Your task to perform on an android device: Open settings on Google Maps Image 0: 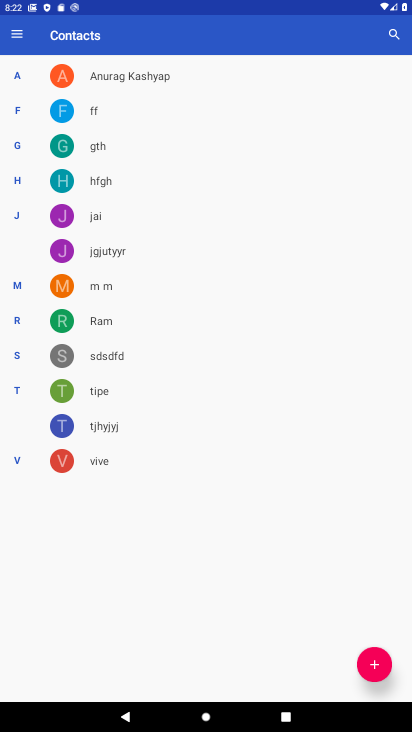
Step 0: press home button
Your task to perform on an android device: Open settings on Google Maps Image 1: 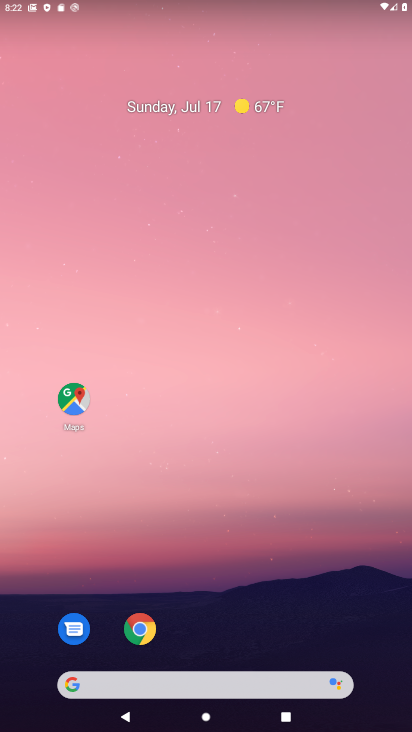
Step 1: click (65, 390)
Your task to perform on an android device: Open settings on Google Maps Image 2: 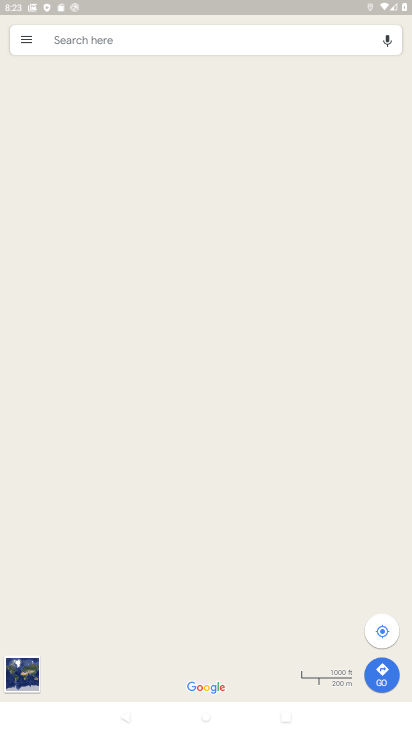
Step 2: click (22, 40)
Your task to perform on an android device: Open settings on Google Maps Image 3: 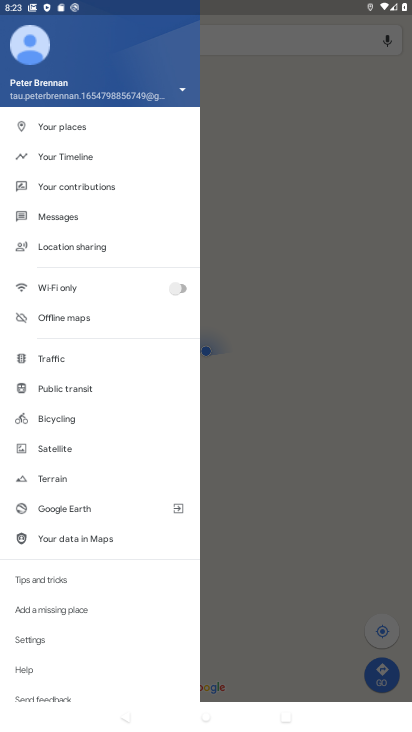
Step 3: click (43, 644)
Your task to perform on an android device: Open settings on Google Maps Image 4: 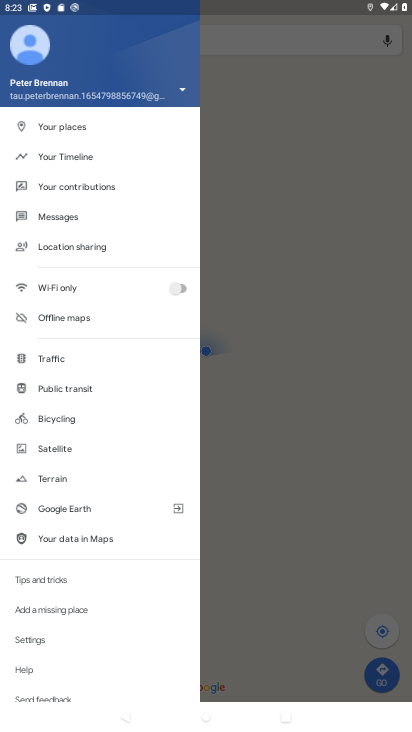
Step 4: click (43, 638)
Your task to perform on an android device: Open settings on Google Maps Image 5: 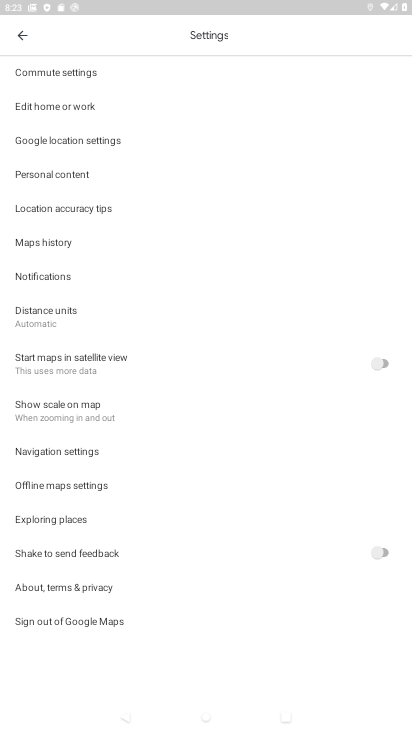
Step 5: task complete